Your task to perform on an android device: toggle pop-ups in chrome Image 0: 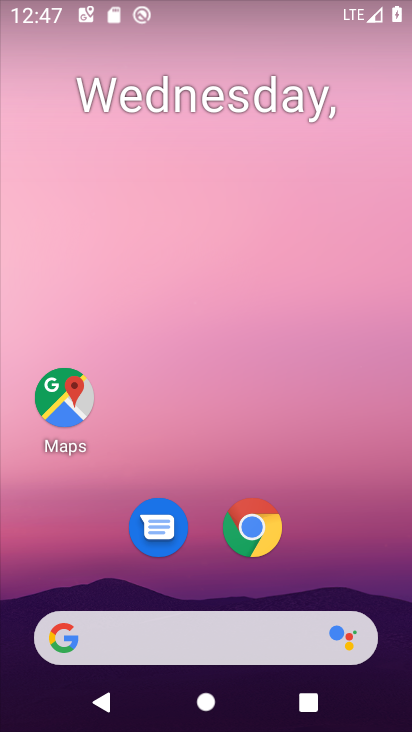
Step 0: drag from (256, 508) to (236, 9)
Your task to perform on an android device: toggle pop-ups in chrome Image 1: 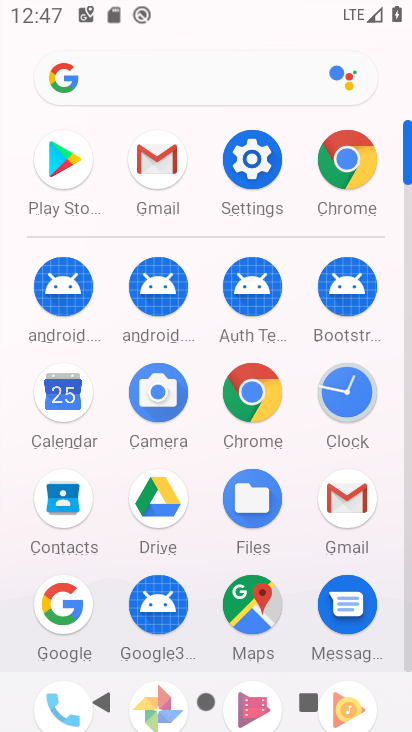
Step 1: click (249, 392)
Your task to perform on an android device: toggle pop-ups in chrome Image 2: 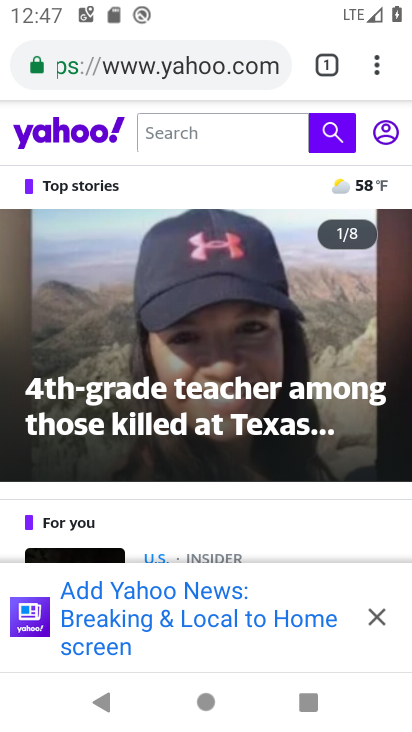
Step 2: click (382, 66)
Your task to perform on an android device: toggle pop-ups in chrome Image 3: 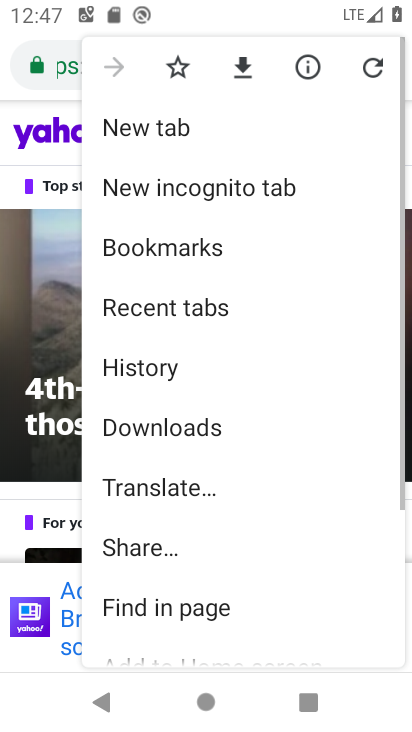
Step 3: drag from (248, 576) to (342, 37)
Your task to perform on an android device: toggle pop-ups in chrome Image 4: 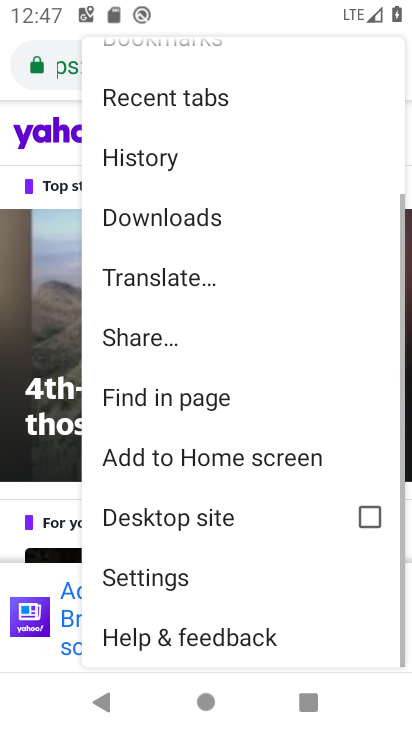
Step 4: click (177, 579)
Your task to perform on an android device: toggle pop-ups in chrome Image 5: 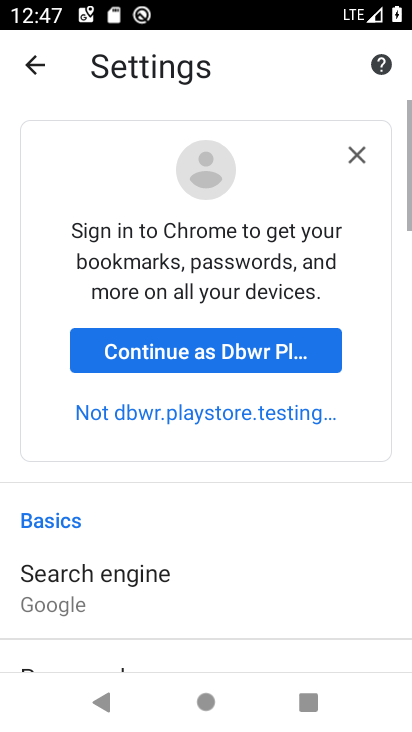
Step 5: drag from (180, 618) to (292, 50)
Your task to perform on an android device: toggle pop-ups in chrome Image 6: 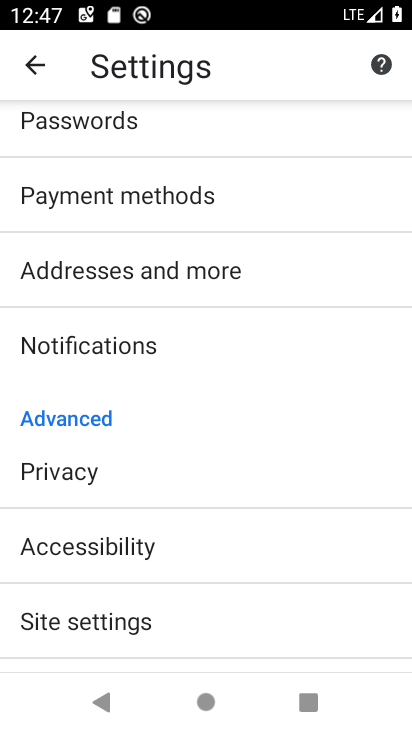
Step 6: click (144, 607)
Your task to perform on an android device: toggle pop-ups in chrome Image 7: 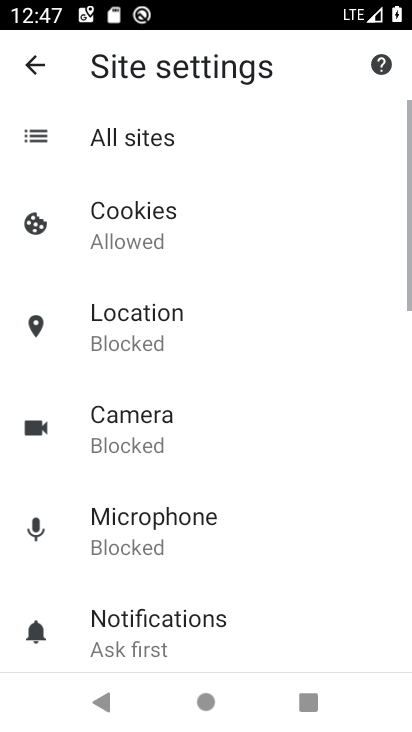
Step 7: drag from (238, 616) to (303, 234)
Your task to perform on an android device: toggle pop-ups in chrome Image 8: 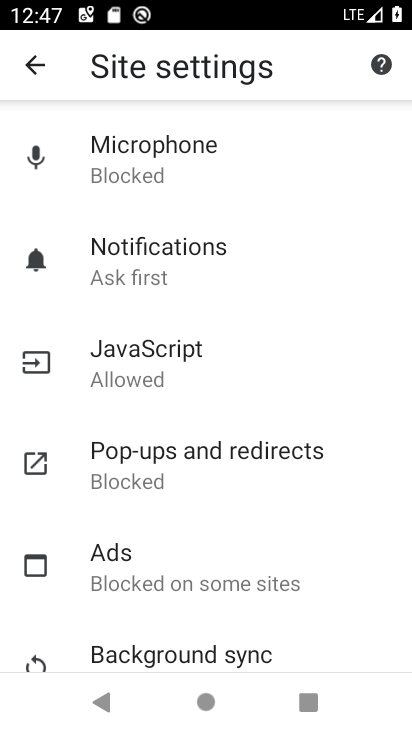
Step 8: click (270, 469)
Your task to perform on an android device: toggle pop-ups in chrome Image 9: 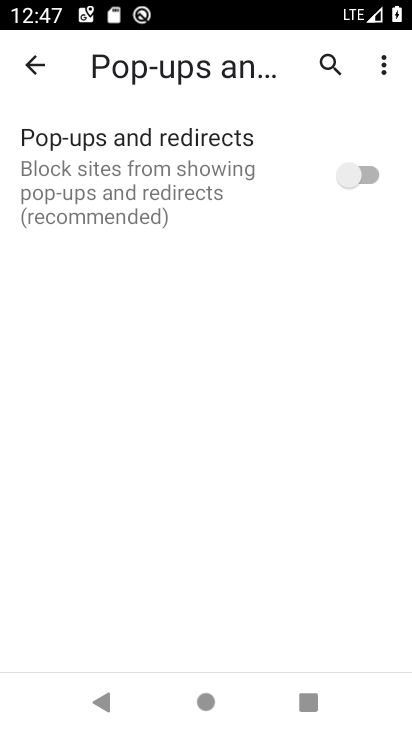
Step 9: click (366, 176)
Your task to perform on an android device: toggle pop-ups in chrome Image 10: 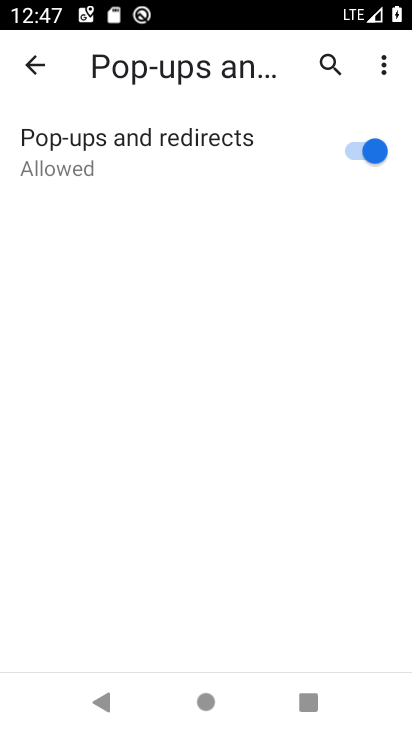
Step 10: task complete